Your task to perform on an android device: Open internet settings Image 0: 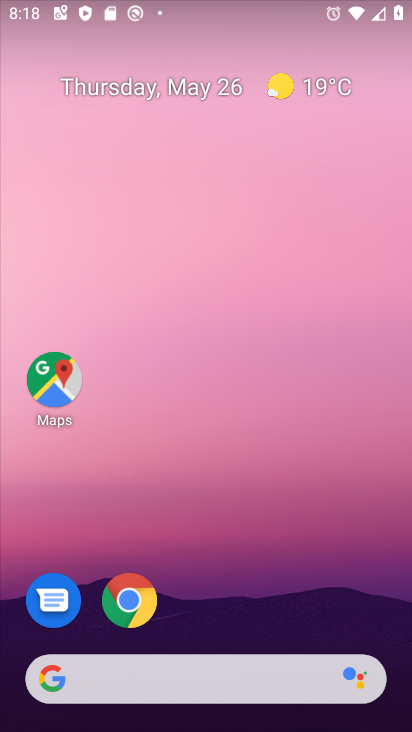
Step 0: press home button
Your task to perform on an android device: Open internet settings Image 1: 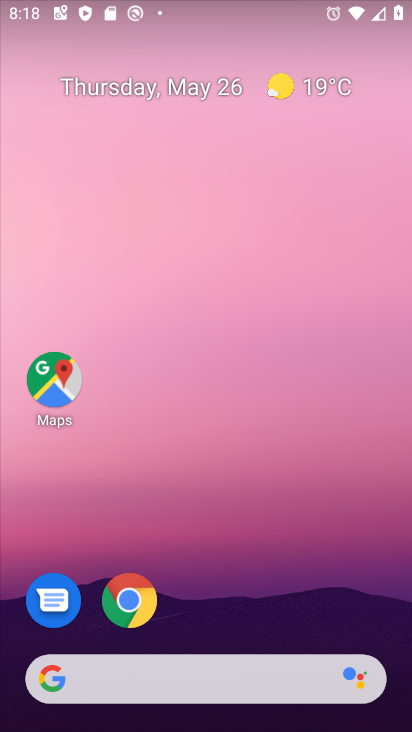
Step 1: drag from (307, 600) to (286, 93)
Your task to perform on an android device: Open internet settings Image 2: 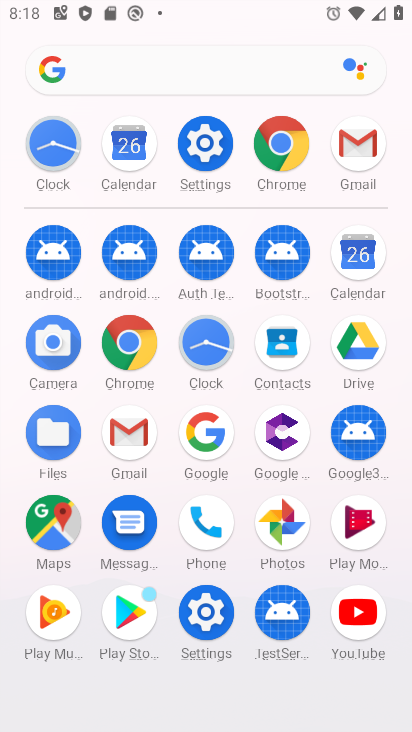
Step 2: click (206, 140)
Your task to perform on an android device: Open internet settings Image 3: 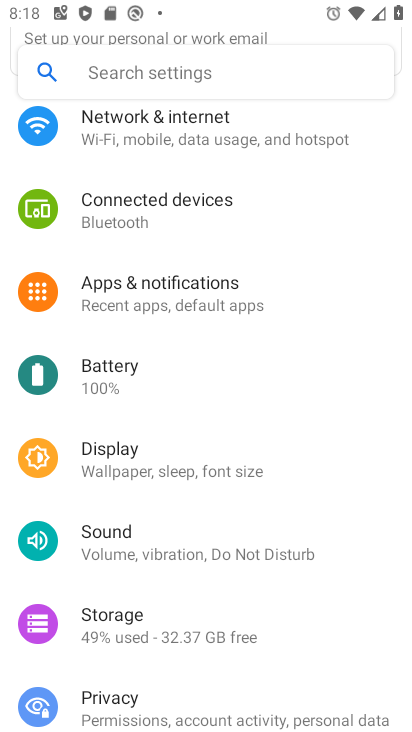
Step 3: click (148, 141)
Your task to perform on an android device: Open internet settings Image 4: 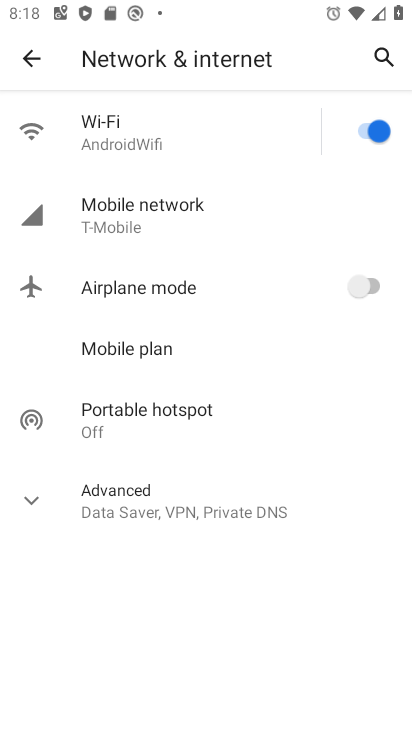
Step 4: task complete